Your task to perform on an android device: Go to sound settings Image 0: 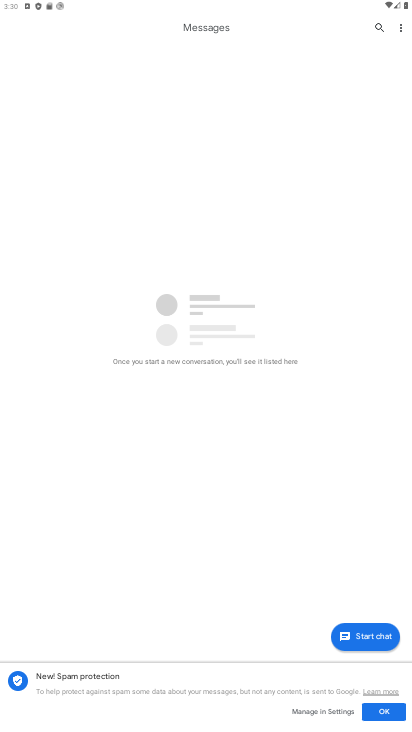
Step 0: press home button
Your task to perform on an android device: Go to sound settings Image 1: 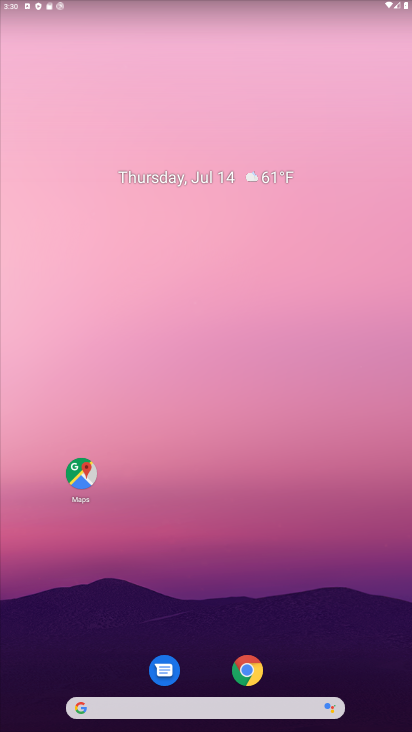
Step 1: drag from (212, 659) to (248, 94)
Your task to perform on an android device: Go to sound settings Image 2: 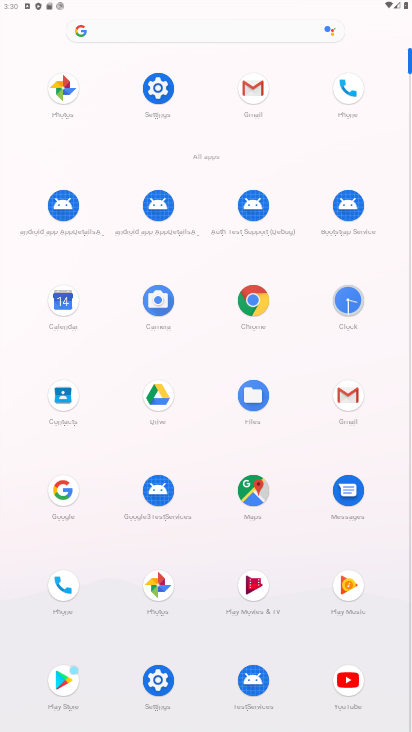
Step 2: click (160, 95)
Your task to perform on an android device: Go to sound settings Image 3: 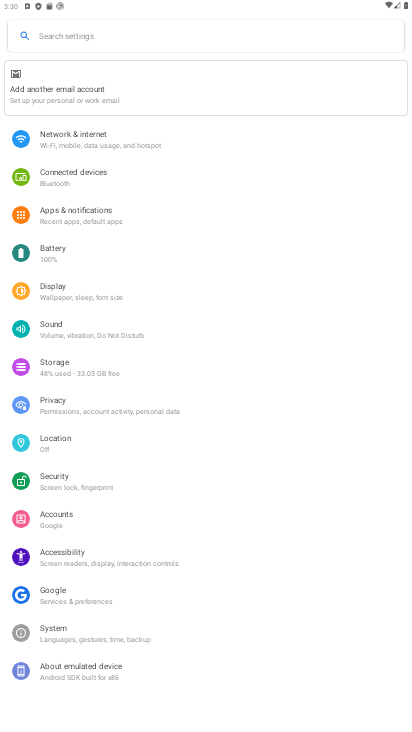
Step 3: click (96, 331)
Your task to perform on an android device: Go to sound settings Image 4: 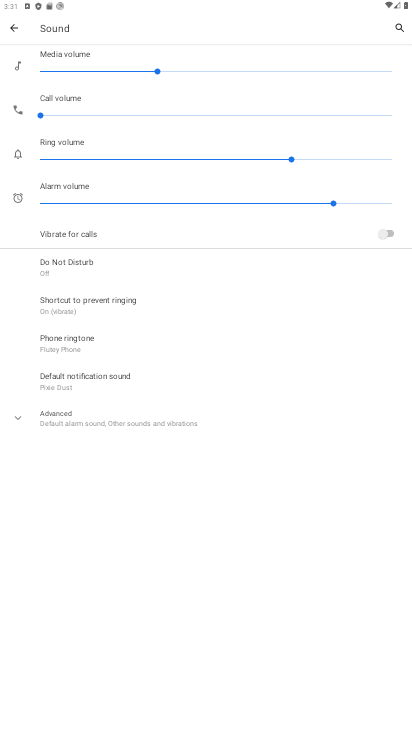
Step 4: task complete